Your task to perform on an android device: move a message to another label in the gmail app Image 0: 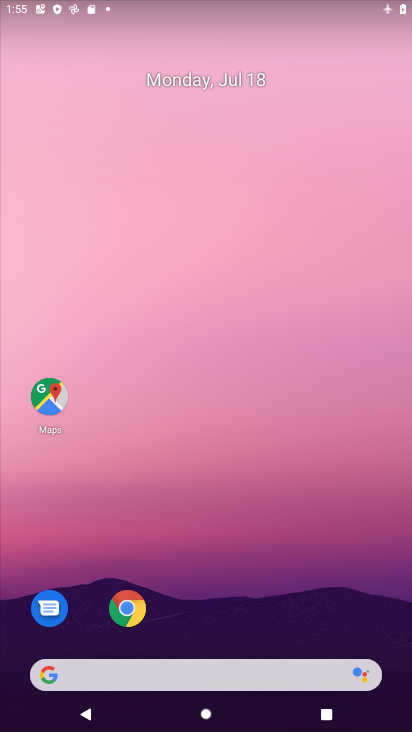
Step 0: drag from (388, 671) to (272, 47)
Your task to perform on an android device: move a message to another label in the gmail app Image 1: 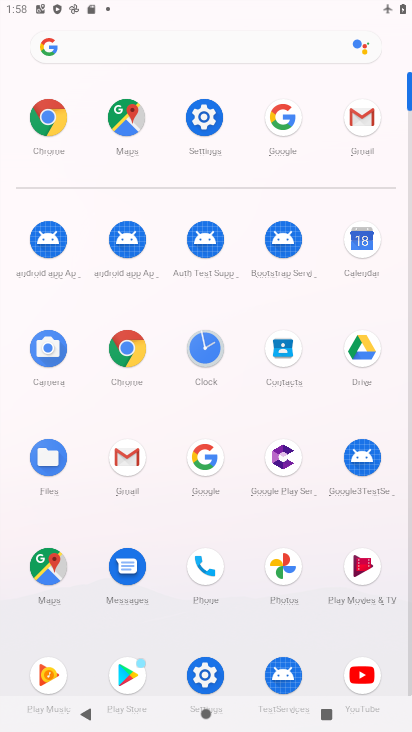
Step 1: click (120, 462)
Your task to perform on an android device: move a message to another label in the gmail app Image 2: 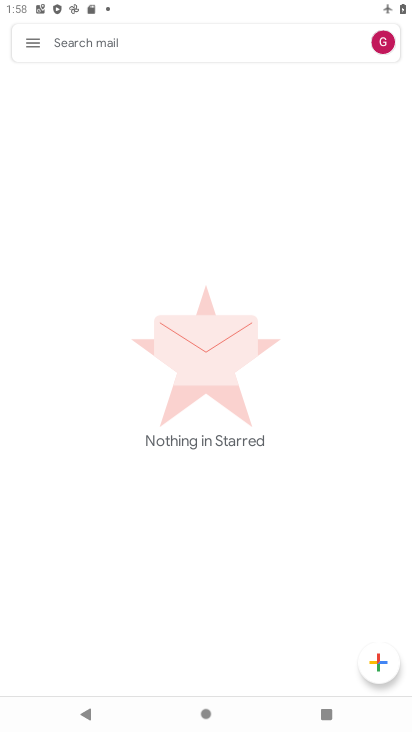
Step 2: task complete